Your task to perform on an android device: Show the shopping cart on ebay. Add "usb-a" to the cart on ebay Image 0: 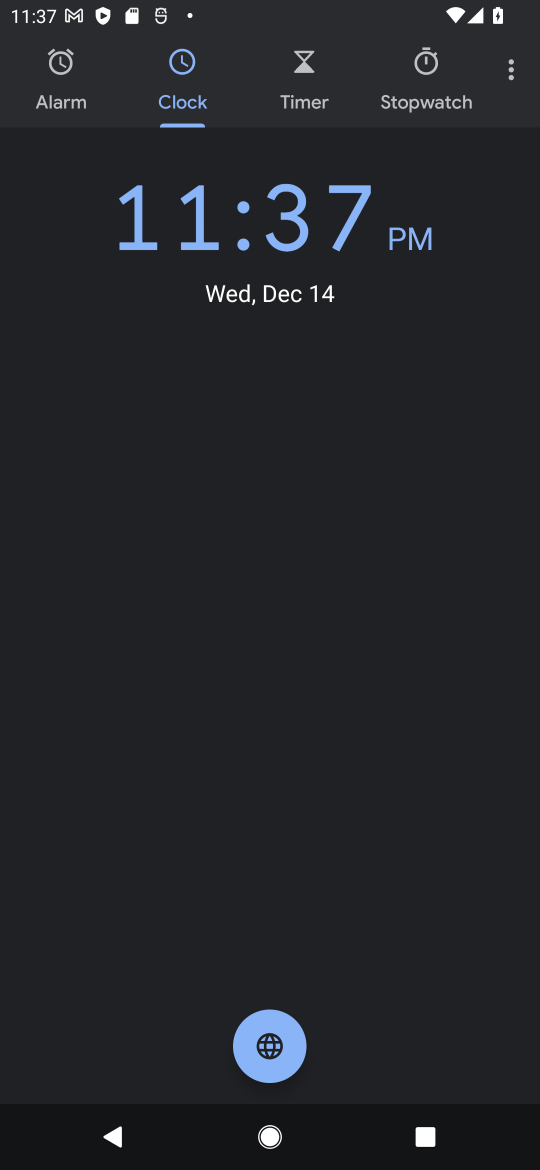
Step 0: press home button
Your task to perform on an android device: Show the shopping cart on ebay. Add "usb-a" to the cart on ebay Image 1: 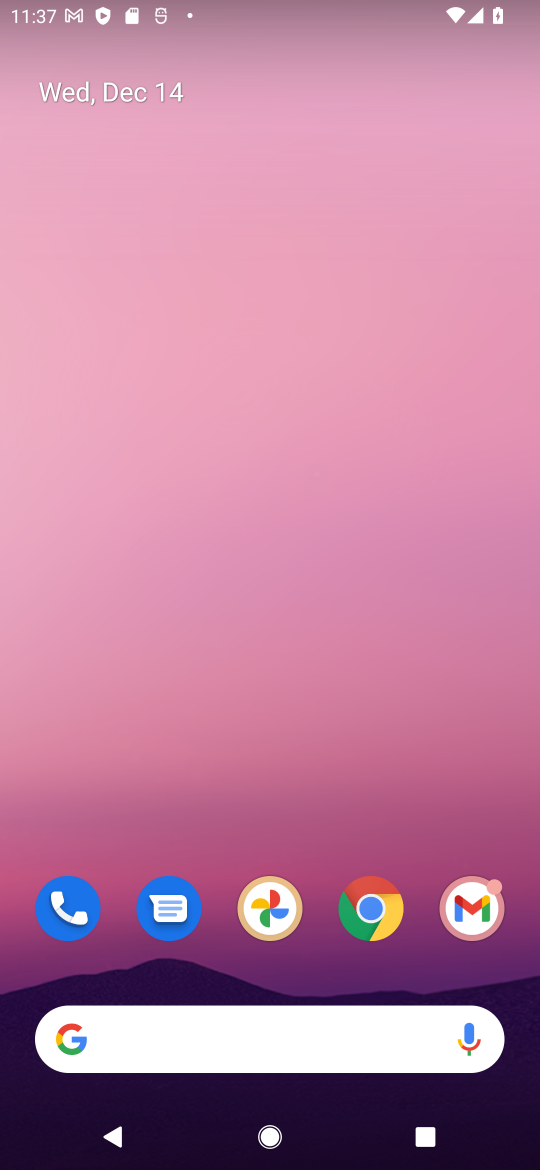
Step 1: click (375, 924)
Your task to perform on an android device: Show the shopping cart on ebay. Add "usb-a" to the cart on ebay Image 2: 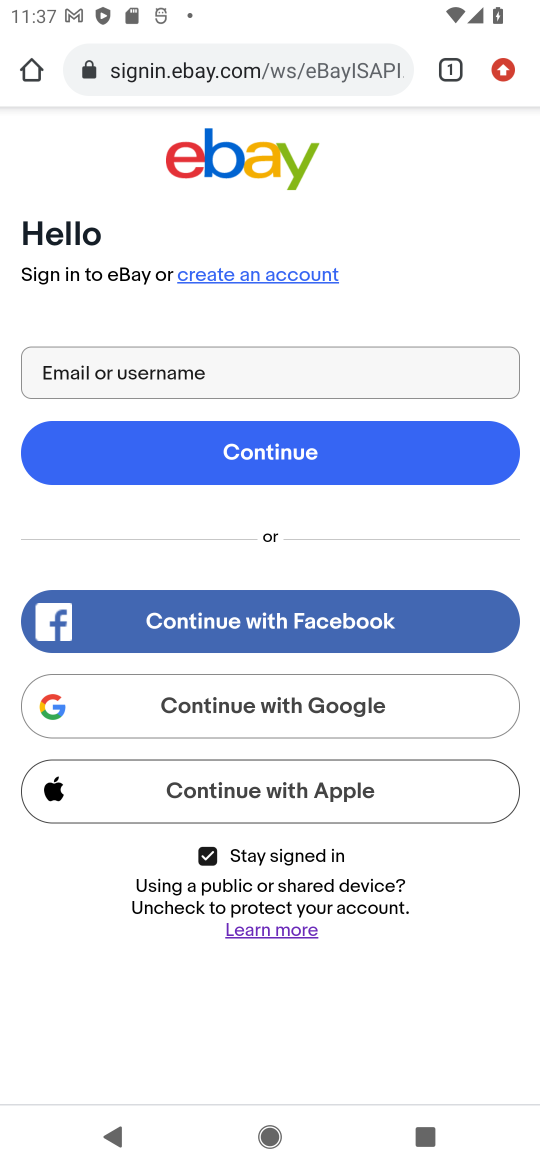
Step 2: press back button
Your task to perform on an android device: Show the shopping cart on ebay. Add "usb-a" to the cart on ebay Image 3: 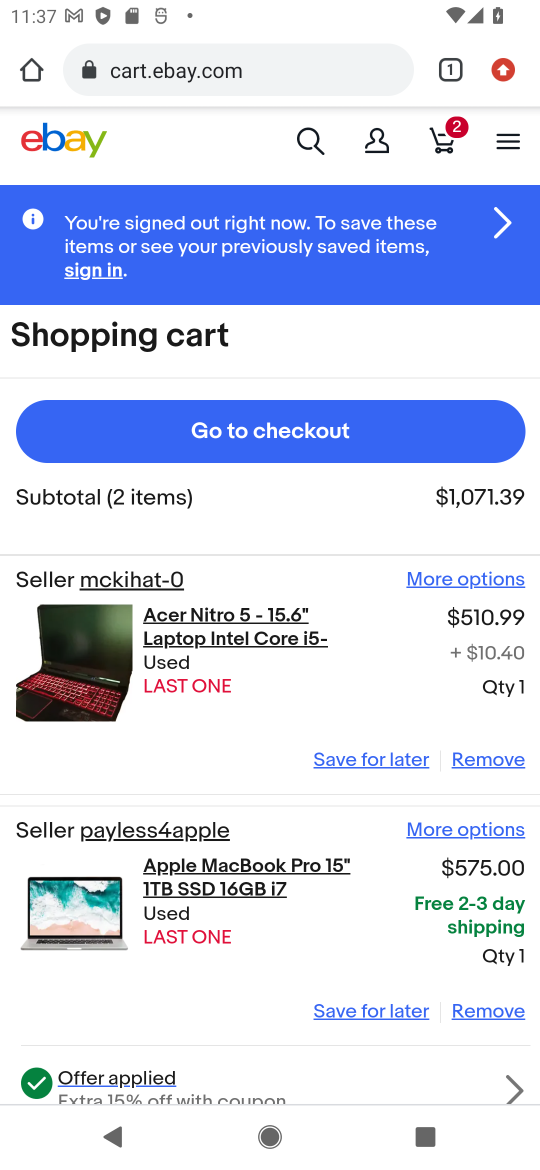
Step 3: drag from (259, 775) to (247, 598)
Your task to perform on an android device: Show the shopping cart on ebay. Add "usb-a" to the cart on ebay Image 4: 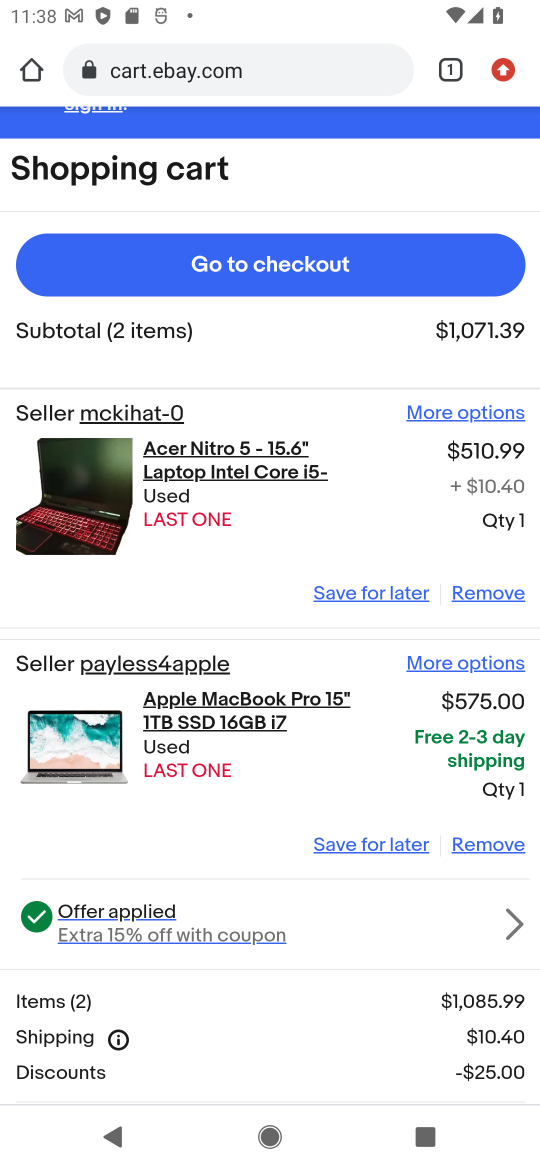
Step 4: drag from (272, 523) to (275, 744)
Your task to perform on an android device: Show the shopping cart on ebay. Add "usb-a" to the cart on ebay Image 5: 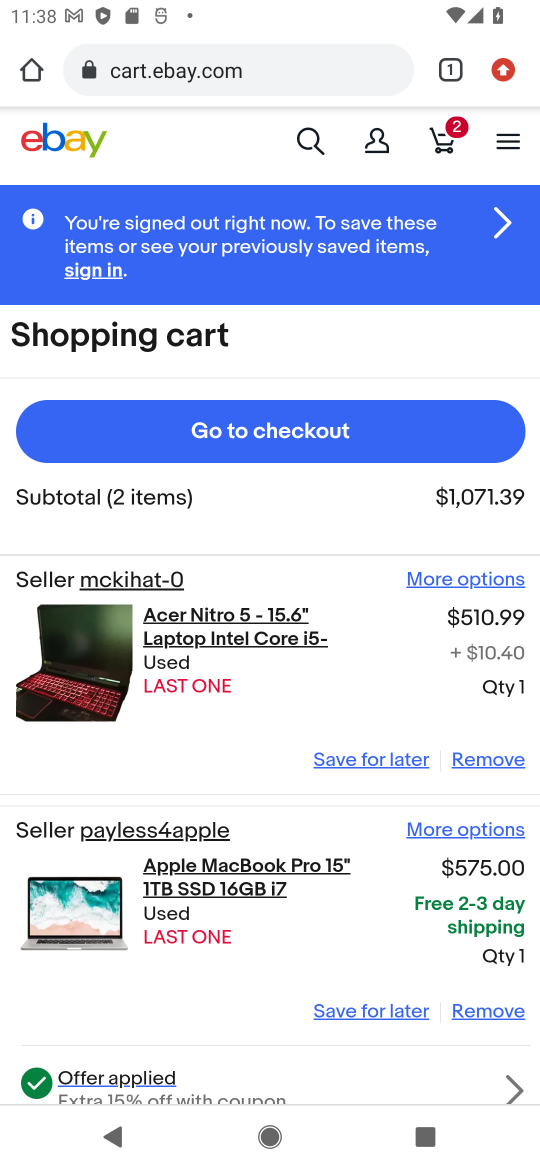
Step 5: click (300, 141)
Your task to perform on an android device: Show the shopping cart on ebay. Add "usb-a" to the cart on ebay Image 6: 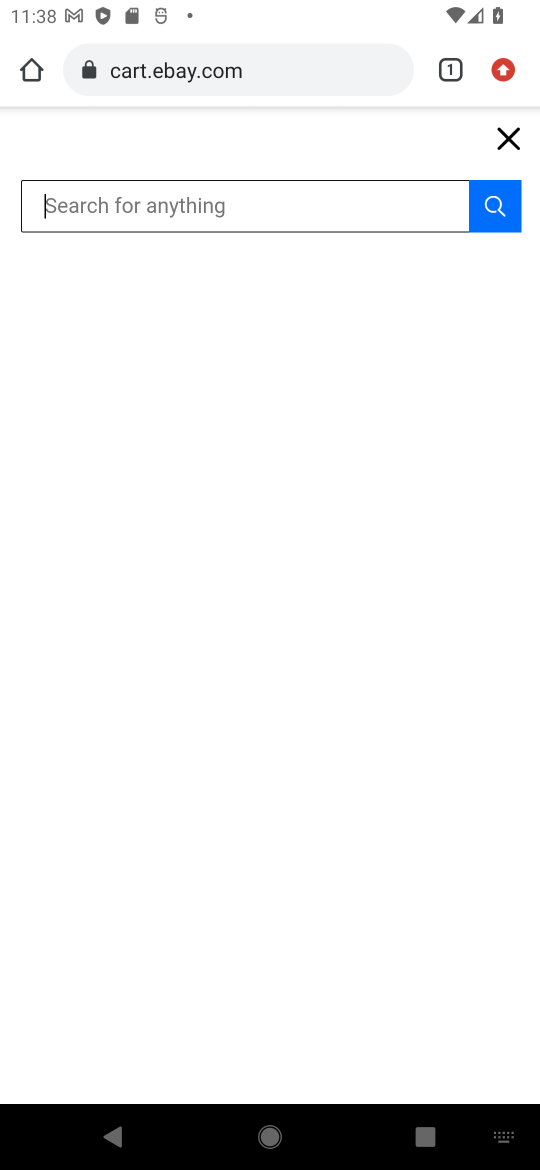
Step 6: type "usb-a"
Your task to perform on an android device: Show the shopping cart on ebay. Add "usb-a" to the cart on ebay Image 7: 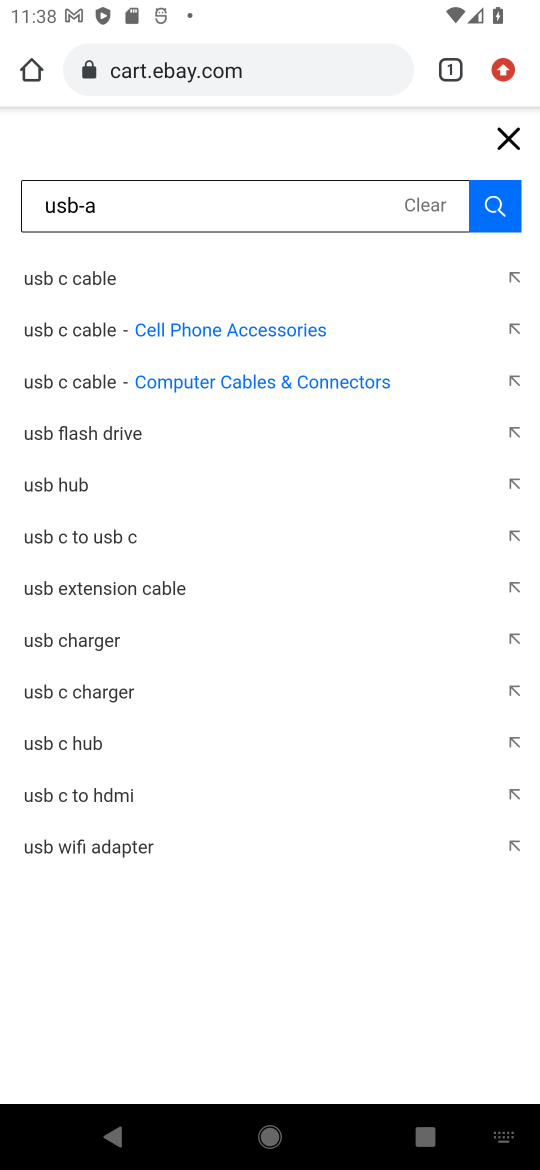
Step 7: click (501, 213)
Your task to perform on an android device: Show the shopping cart on ebay. Add "usb-a" to the cart on ebay Image 8: 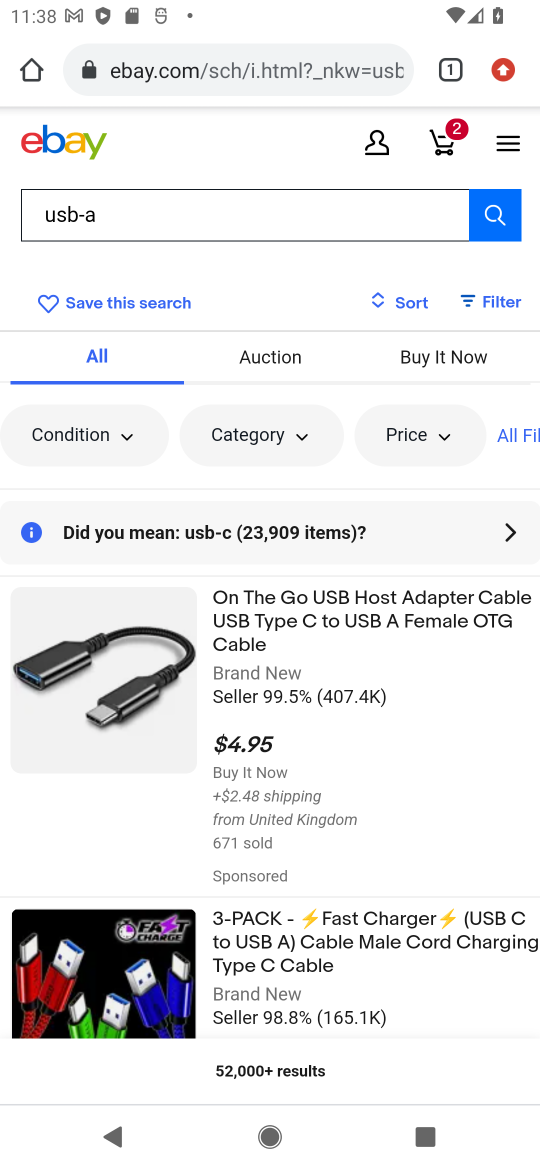
Step 8: click (215, 640)
Your task to perform on an android device: Show the shopping cart on ebay. Add "usb-a" to the cart on ebay Image 9: 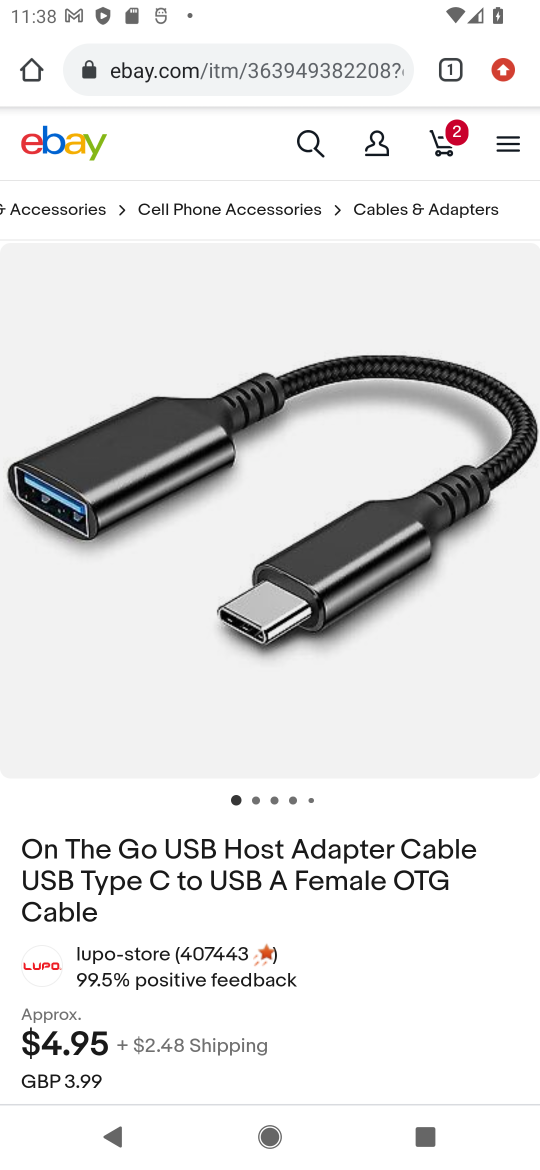
Step 9: drag from (230, 837) to (234, 365)
Your task to perform on an android device: Show the shopping cart on ebay. Add "usb-a" to the cart on ebay Image 10: 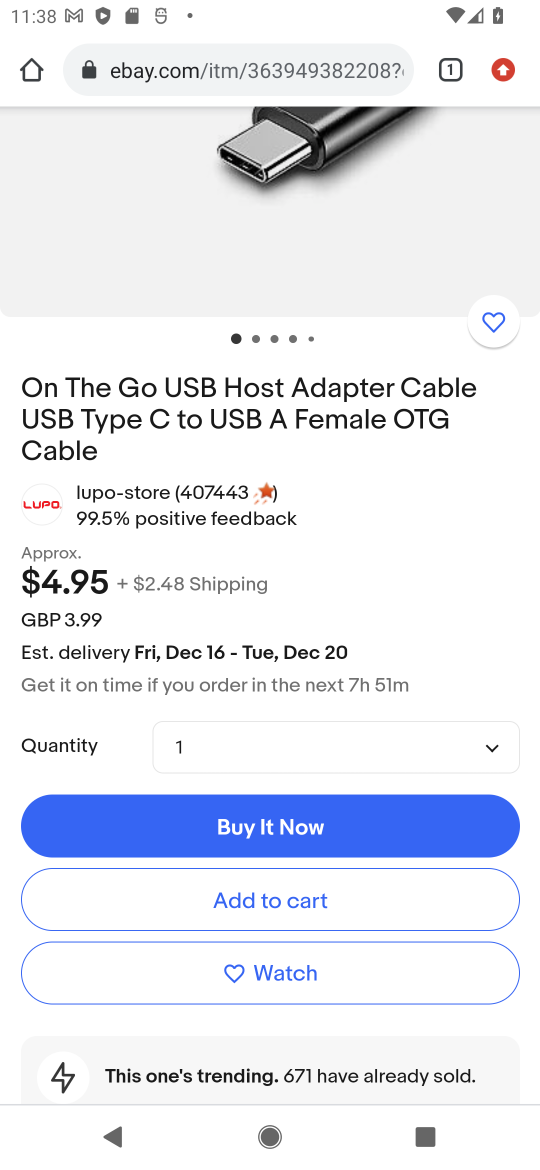
Step 10: click (225, 897)
Your task to perform on an android device: Show the shopping cart on ebay. Add "usb-a" to the cart on ebay Image 11: 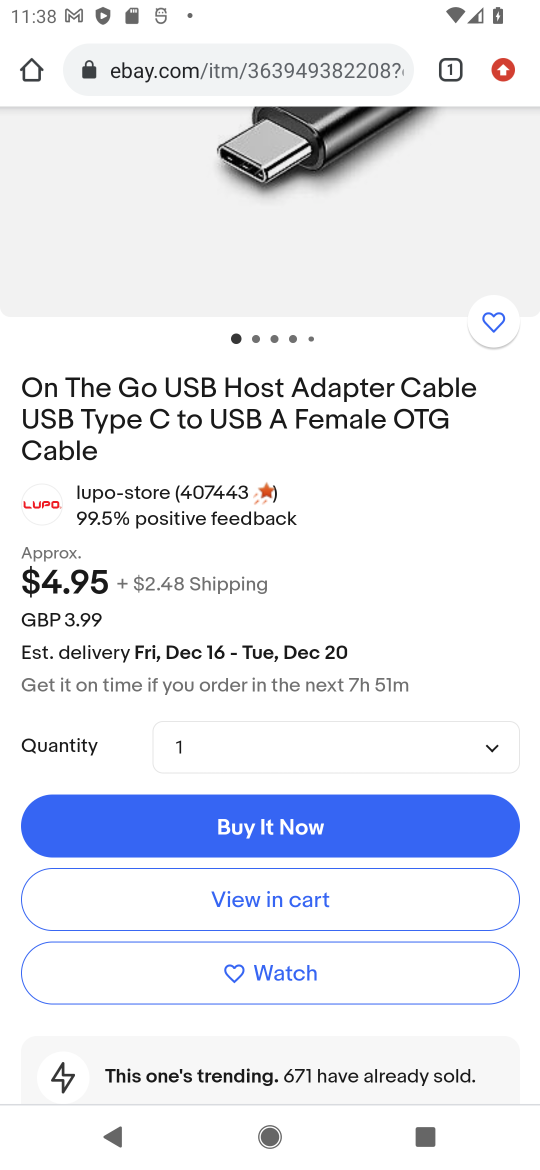
Step 11: task complete